Your task to perform on an android device: Open CNN.com Image 0: 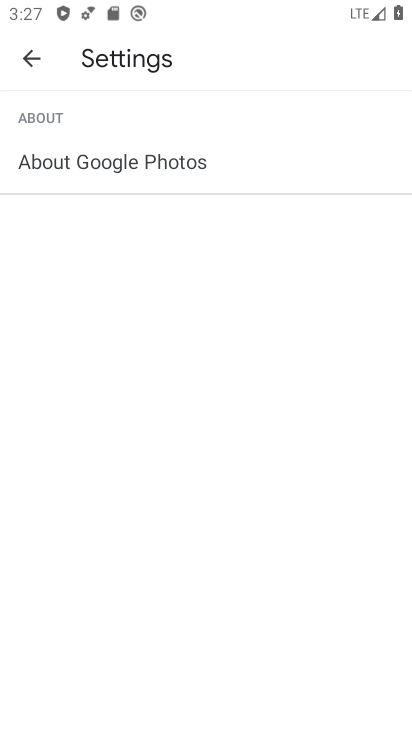
Step 0: press home button
Your task to perform on an android device: Open CNN.com Image 1: 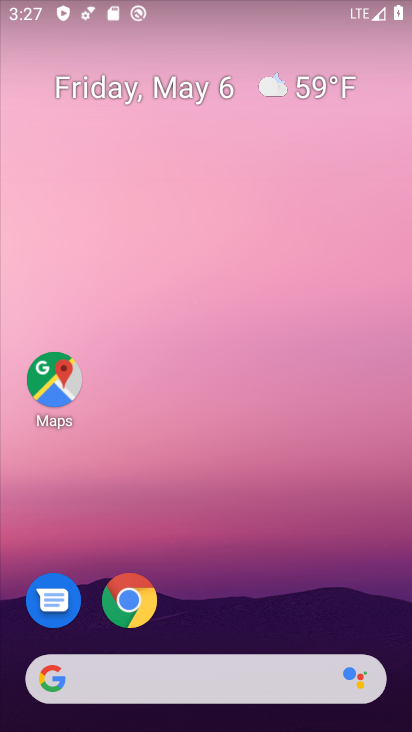
Step 1: click (134, 588)
Your task to perform on an android device: Open CNN.com Image 2: 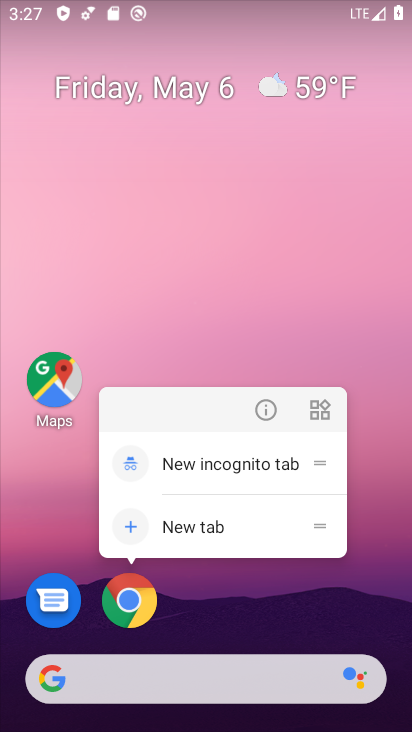
Step 2: click (121, 611)
Your task to perform on an android device: Open CNN.com Image 3: 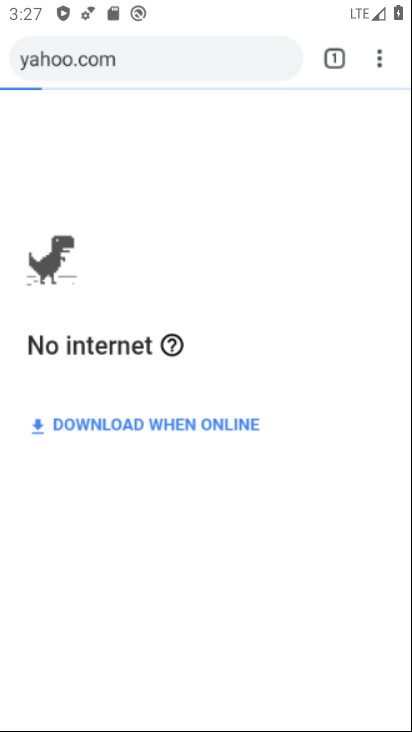
Step 3: click (219, 65)
Your task to perform on an android device: Open CNN.com Image 4: 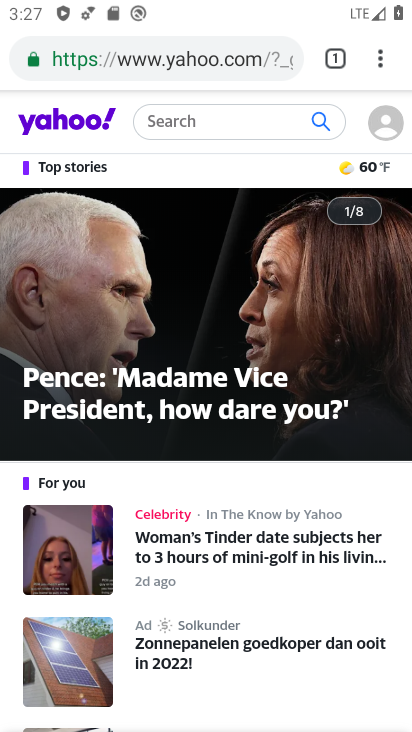
Step 4: click (224, 61)
Your task to perform on an android device: Open CNN.com Image 5: 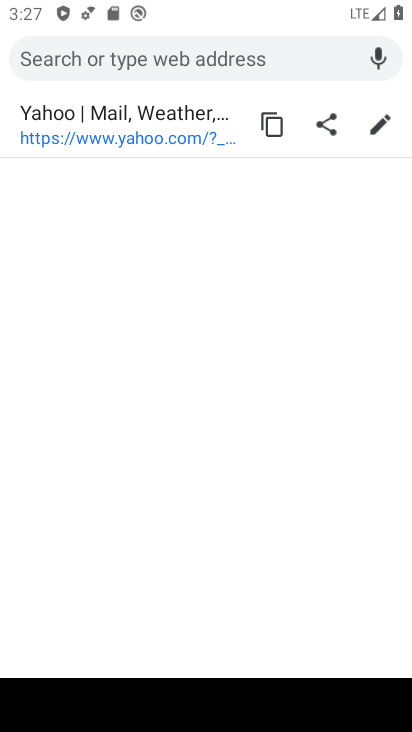
Step 5: type "CNN.com"
Your task to perform on an android device: Open CNN.com Image 6: 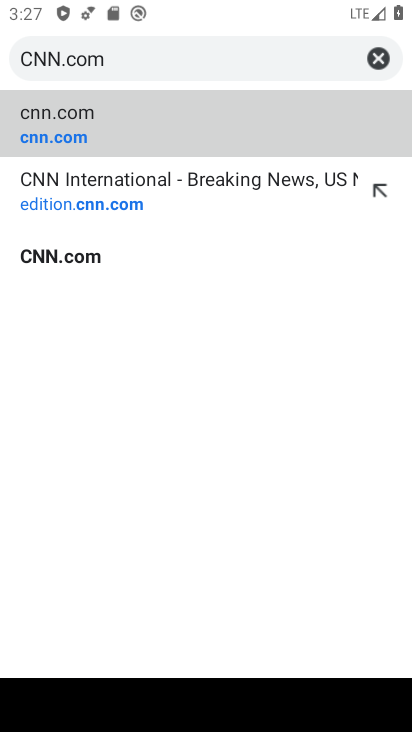
Step 6: click (122, 134)
Your task to perform on an android device: Open CNN.com Image 7: 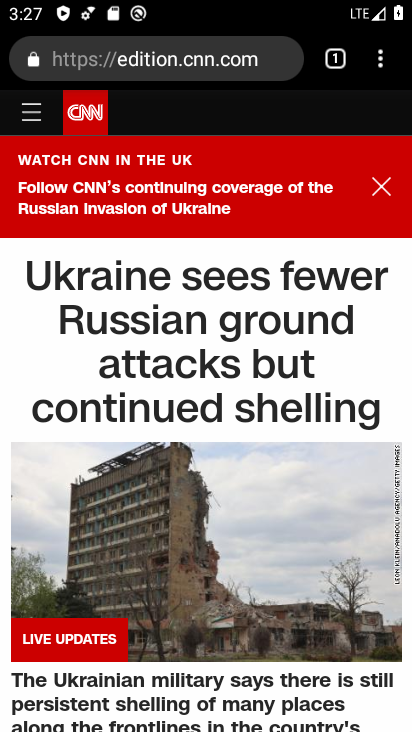
Step 7: task complete